Your task to perform on an android device: set default search engine in the chrome app Image 0: 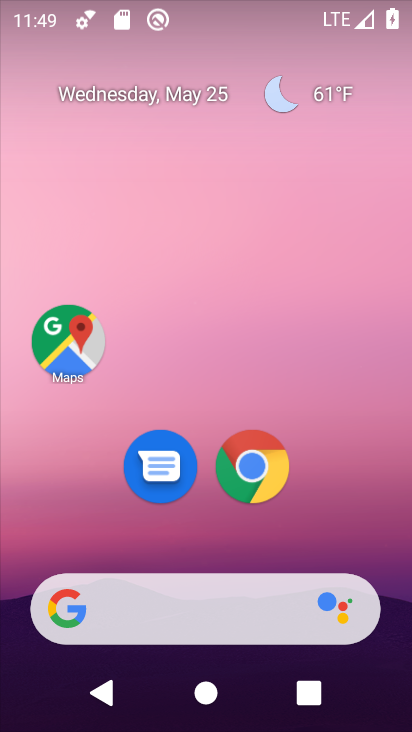
Step 0: click (261, 459)
Your task to perform on an android device: set default search engine in the chrome app Image 1: 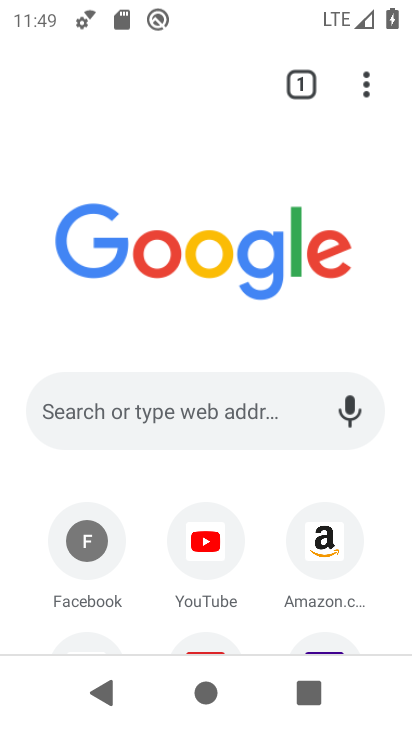
Step 1: click (368, 96)
Your task to perform on an android device: set default search engine in the chrome app Image 2: 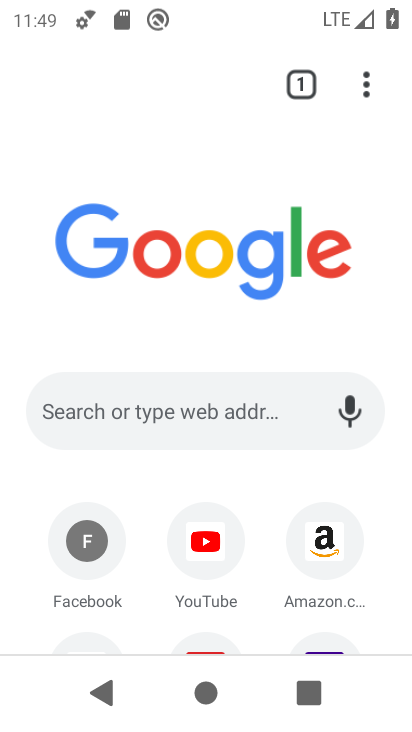
Step 2: click (366, 88)
Your task to perform on an android device: set default search engine in the chrome app Image 3: 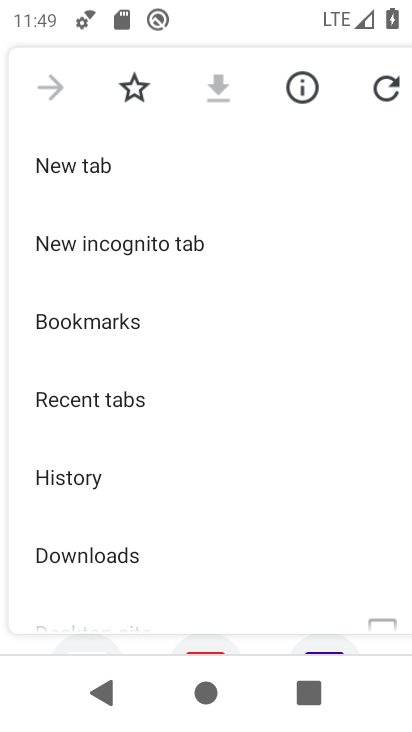
Step 3: drag from (131, 474) to (207, 166)
Your task to perform on an android device: set default search engine in the chrome app Image 4: 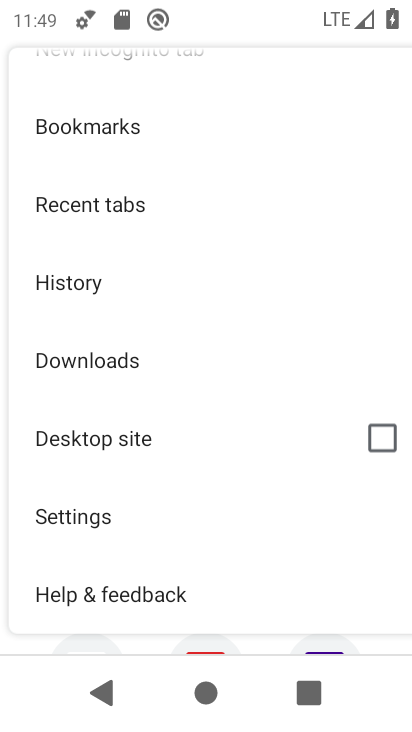
Step 4: drag from (176, 425) to (221, 149)
Your task to perform on an android device: set default search engine in the chrome app Image 5: 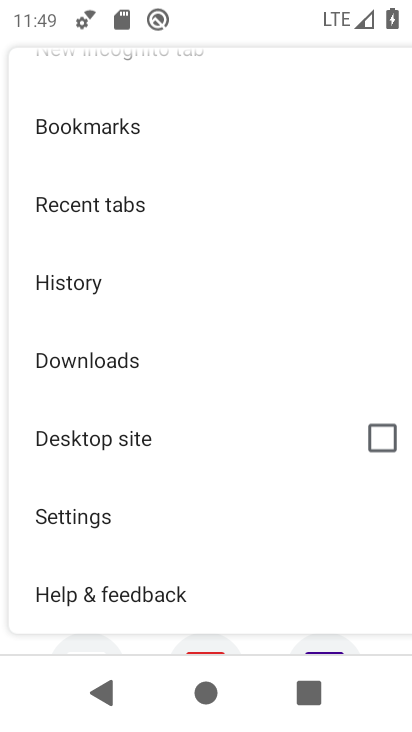
Step 5: click (84, 524)
Your task to perform on an android device: set default search engine in the chrome app Image 6: 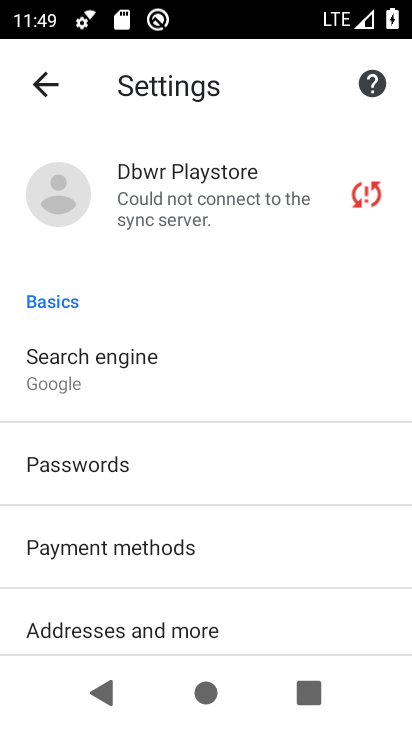
Step 6: click (113, 390)
Your task to perform on an android device: set default search engine in the chrome app Image 7: 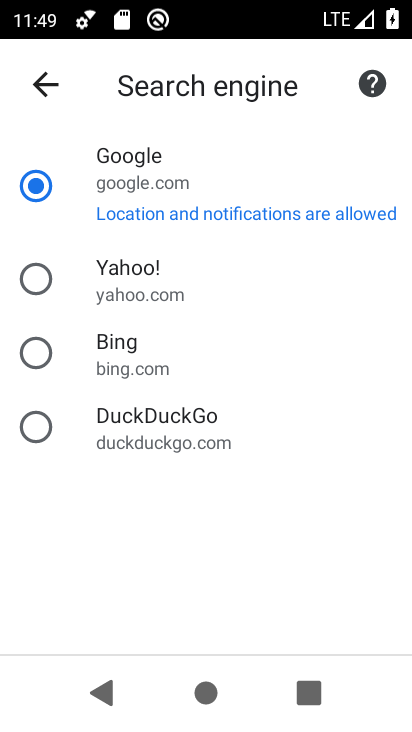
Step 7: click (173, 211)
Your task to perform on an android device: set default search engine in the chrome app Image 8: 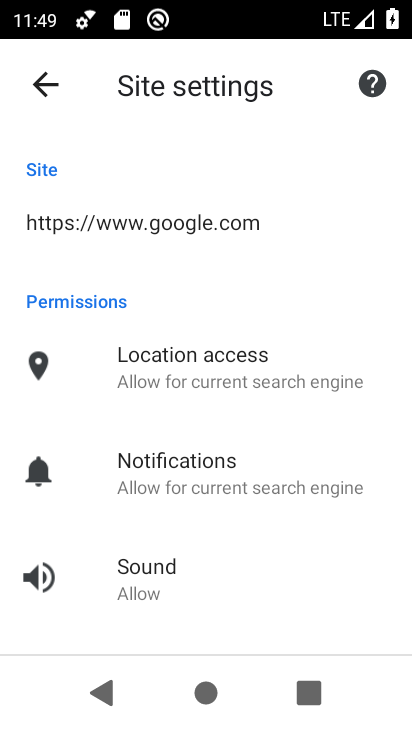
Step 8: drag from (204, 517) to (243, 207)
Your task to perform on an android device: set default search engine in the chrome app Image 9: 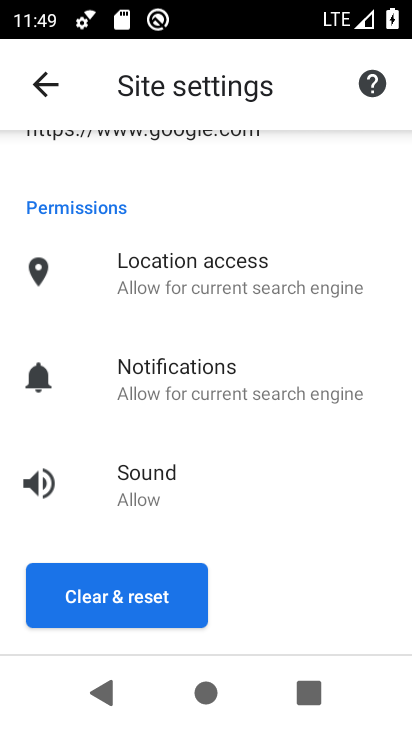
Step 9: click (107, 598)
Your task to perform on an android device: set default search engine in the chrome app Image 10: 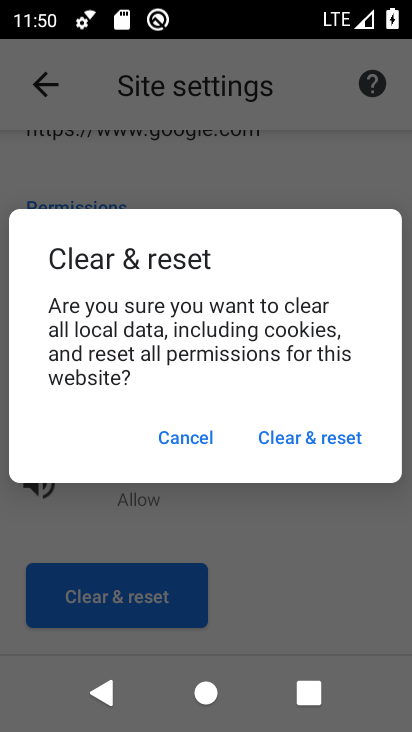
Step 10: click (329, 436)
Your task to perform on an android device: set default search engine in the chrome app Image 11: 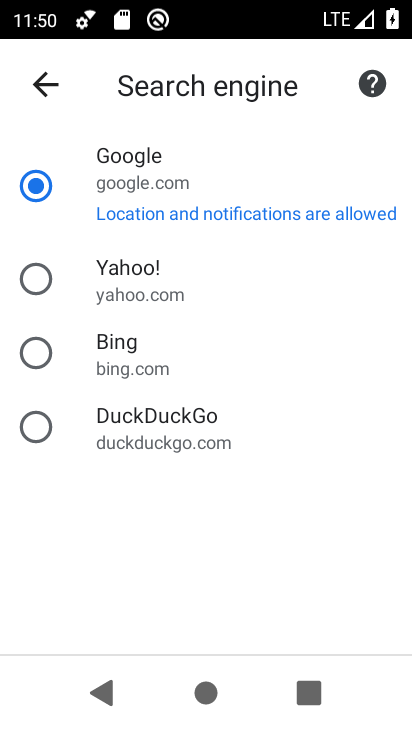
Step 11: task complete